Your task to perform on an android device: turn on data saver in the chrome app Image 0: 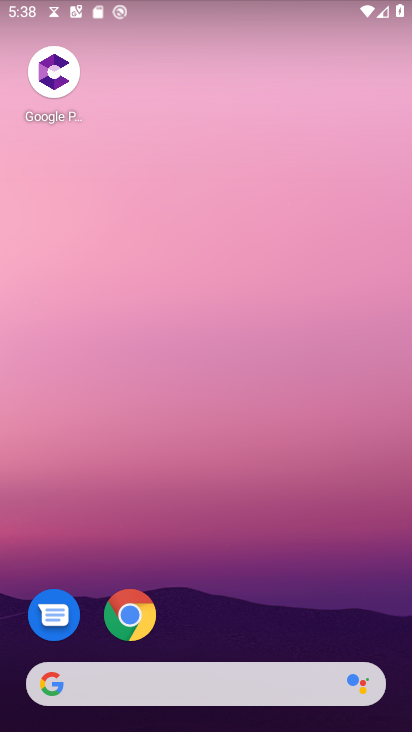
Step 0: drag from (280, 565) to (287, 41)
Your task to perform on an android device: turn on data saver in the chrome app Image 1: 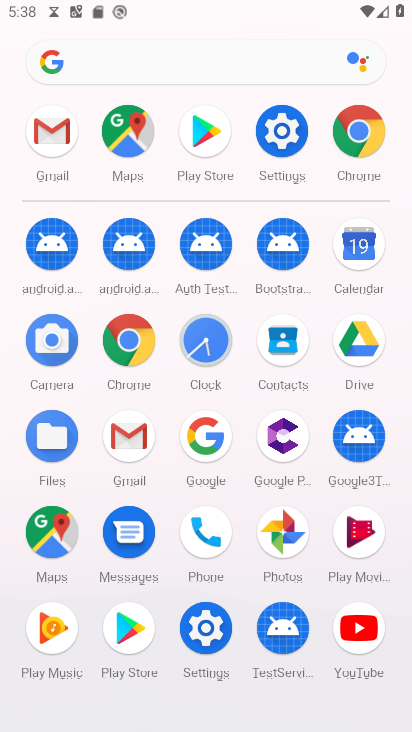
Step 1: click (127, 352)
Your task to perform on an android device: turn on data saver in the chrome app Image 2: 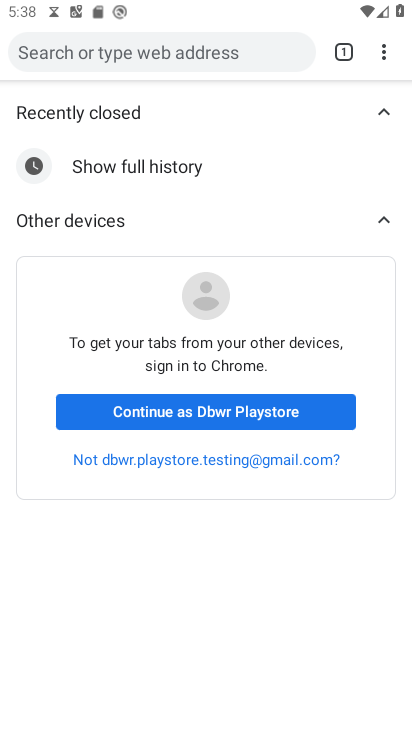
Step 2: drag from (383, 54) to (199, 442)
Your task to perform on an android device: turn on data saver in the chrome app Image 3: 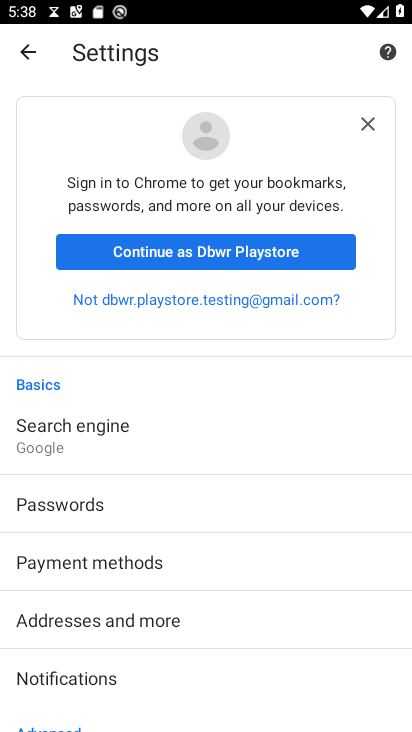
Step 3: drag from (149, 618) to (160, 110)
Your task to perform on an android device: turn on data saver in the chrome app Image 4: 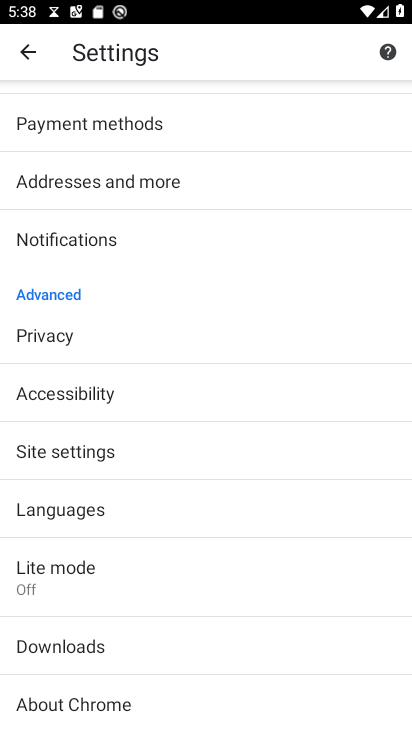
Step 4: click (48, 572)
Your task to perform on an android device: turn on data saver in the chrome app Image 5: 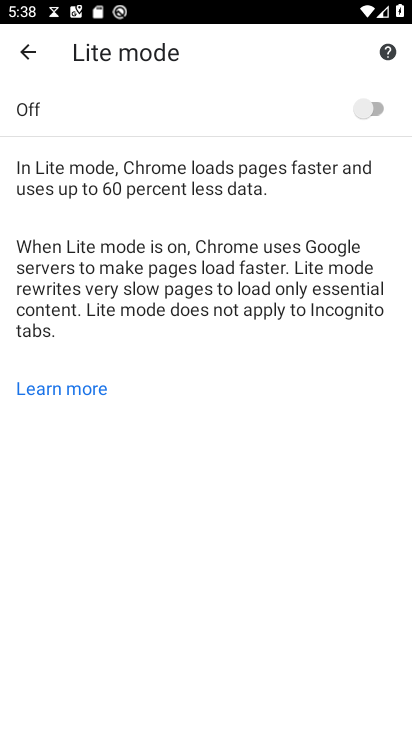
Step 5: click (364, 102)
Your task to perform on an android device: turn on data saver in the chrome app Image 6: 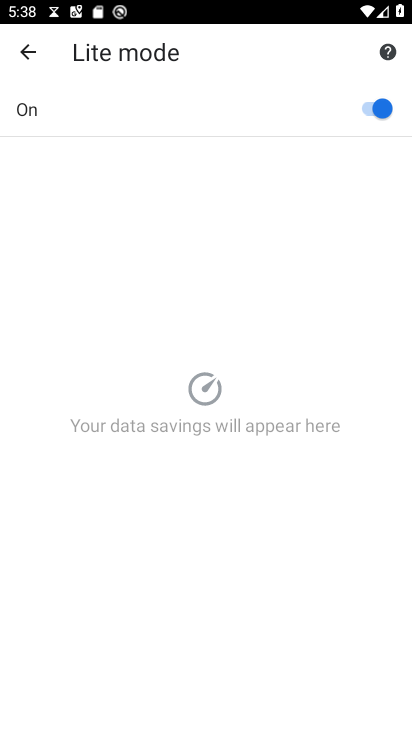
Step 6: task complete